Your task to perform on an android device: Open calendar and show me the fourth week of next month Image 0: 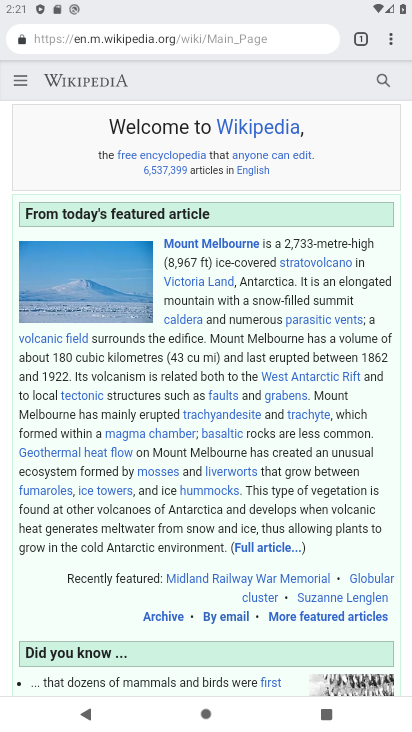
Step 0: press home button
Your task to perform on an android device: Open calendar and show me the fourth week of next month Image 1: 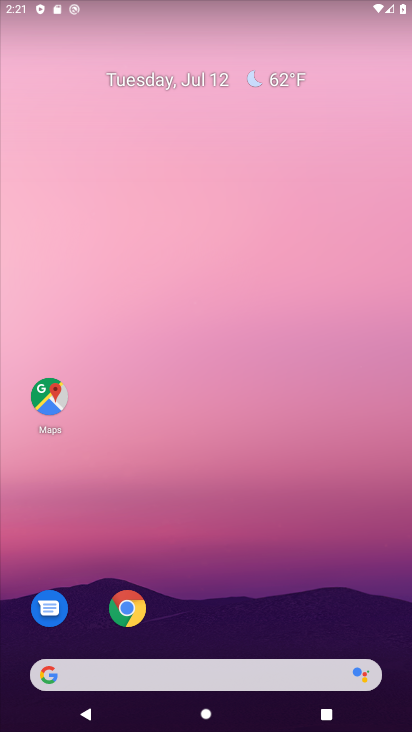
Step 1: drag from (205, 665) to (338, 81)
Your task to perform on an android device: Open calendar and show me the fourth week of next month Image 2: 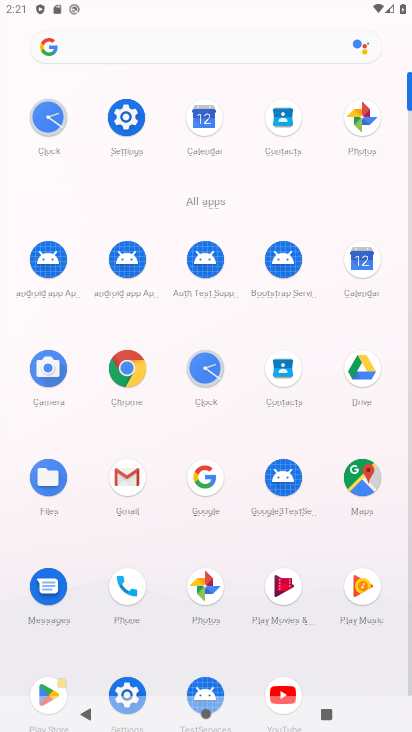
Step 2: click (199, 122)
Your task to perform on an android device: Open calendar and show me the fourth week of next month Image 3: 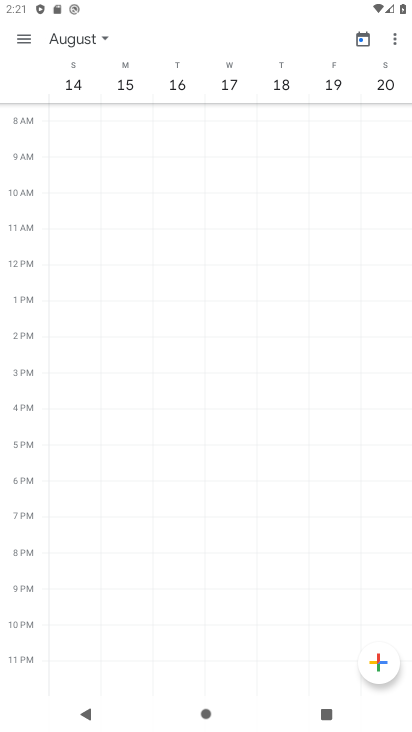
Step 3: click (73, 30)
Your task to perform on an android device: Open calendar and show me the fourth week of next month Image 4: 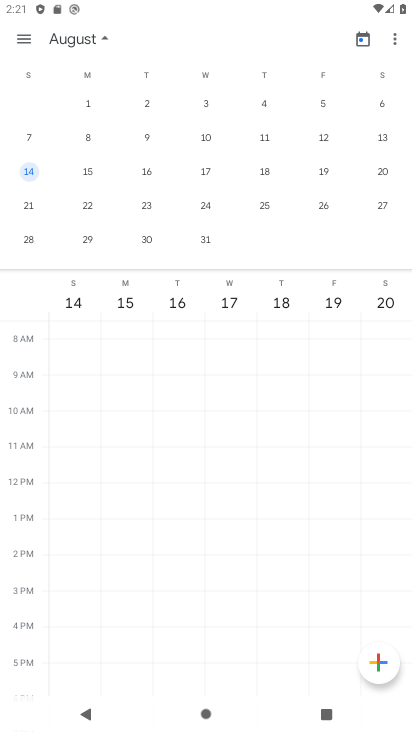
Step 4: click (23, 208)
Your task to perform on an android device: Open calendar and show me the fourth week of next month Image 5: 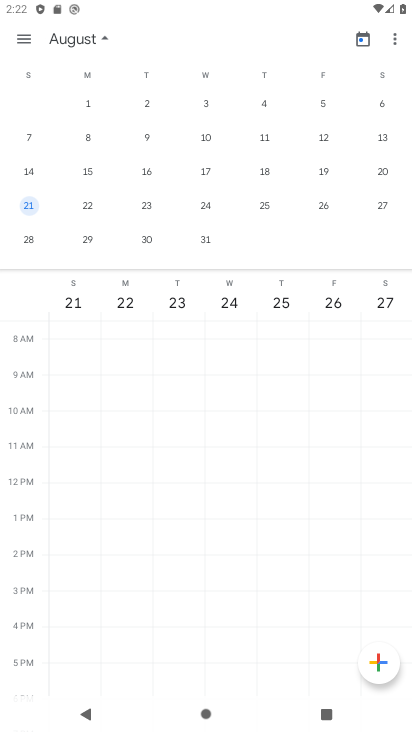
Step 5: click (28, 36)
Your task to perform on an android device: Open calendar and show me the fourth week of next month Image 6: 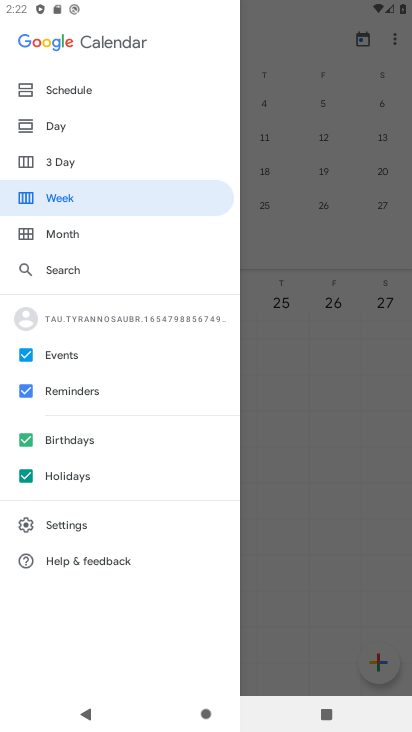
Step 6: click (68, 195)
Your task to perform on an android device: Open calendar and show me the fourth week of next month Image 7: 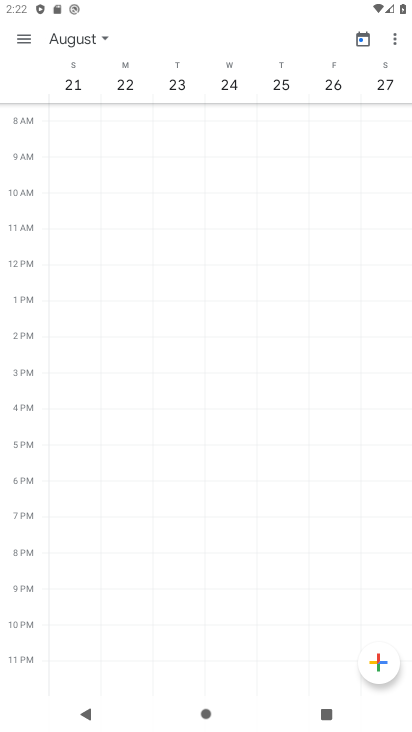
Step 7: task complete